Your task to perform on an android device: Show me the alarms in the clock app Image 0: 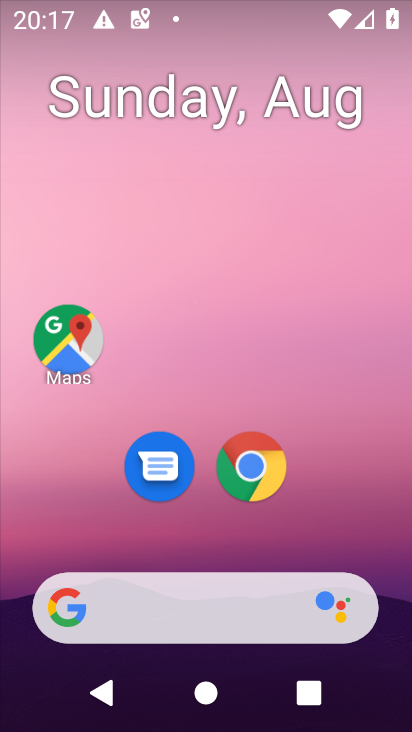
Step 0: drag from (367, 517) to (346, 136)
Your task to perform on an android device: Show me the alarms in the clock app Image 1: 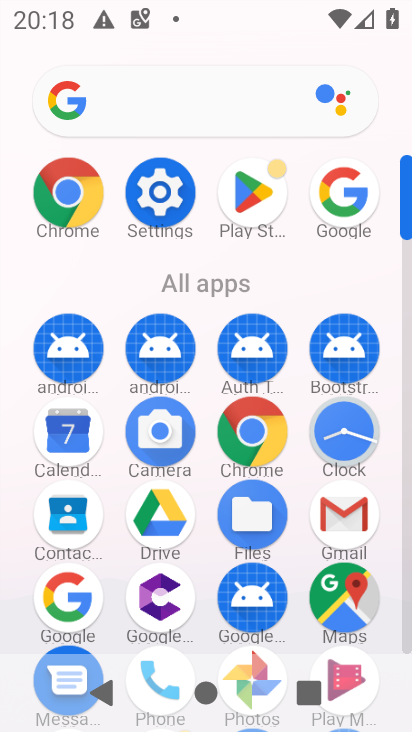
Step 1: click (340, 429)
Your task to perform on an android device: Show me the alarms in the clock app Image 2: 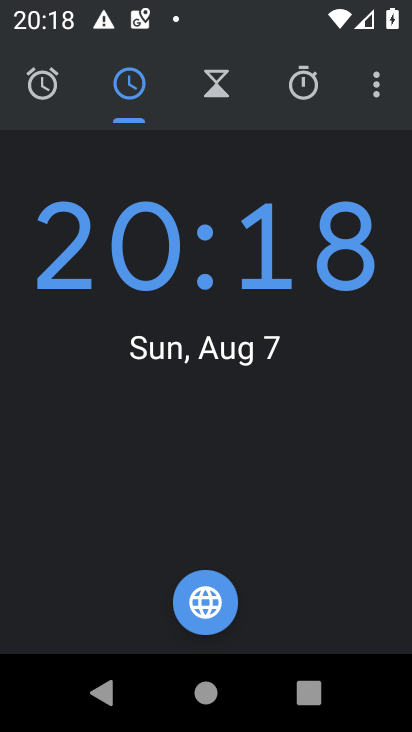
Step 2: click (33, 70)
Your task to perform on an android device: Show me the alarms in the clock app Image 3: 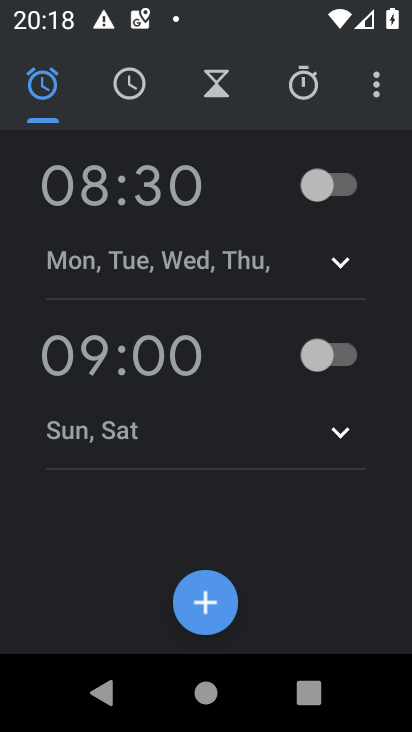
Step 3: task complete